Your task to perform on an android device: turn smart compose on in the gmail app Image 0: 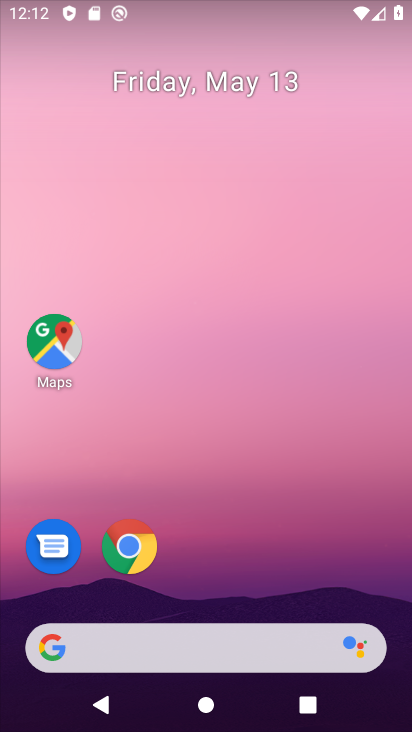
Step 0: drag from (227, 562) to (99, 143)
Your task to perform on an android device: turn smart compose on in the gmail app Image 1: 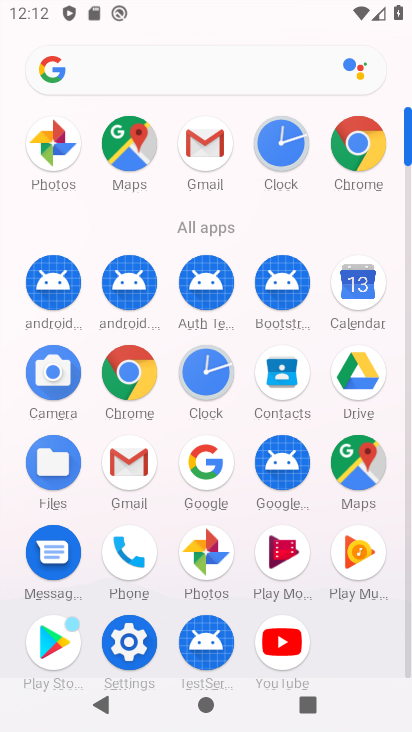
Step 1: drag from (291, 535) to (116, 194)
Your task to perform on an android device: turn smart compose on in the gmail app Image 2: 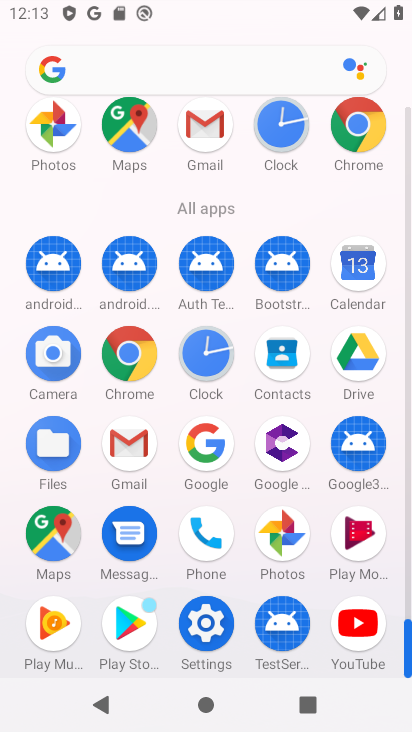
Step 2: click (135, 442)
Your task to perform on an android device: turn smart compose on in the gmail app Image 3: 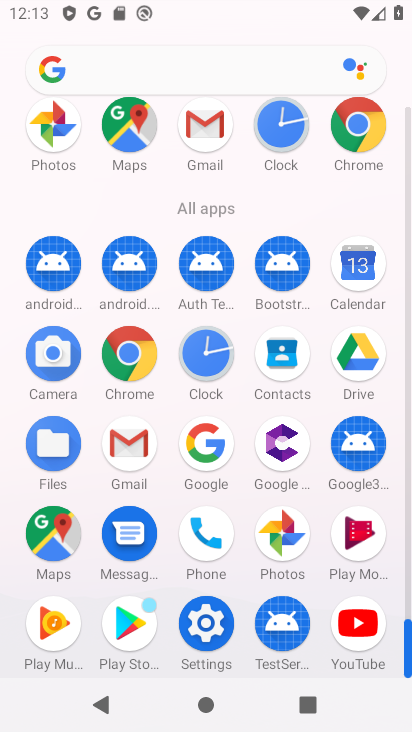
Step 3: click (128, 430)
Your task to perform on an android device: turn smart compose on in the gmail app Image 4: 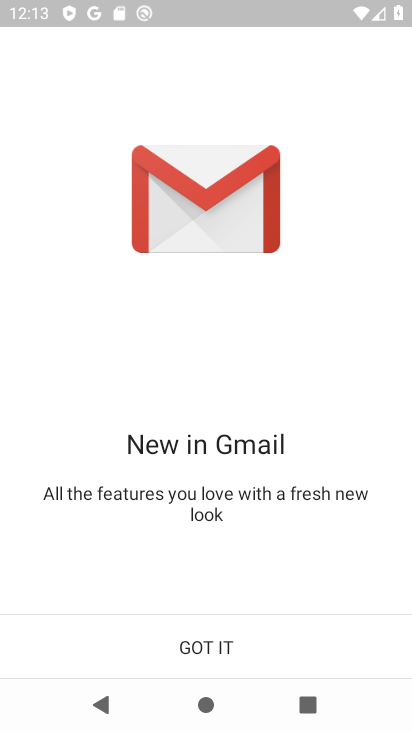
Step 4: click (214, 649)
Your task to perform on an android device: turn smart compose on in the gmail app Image 5: 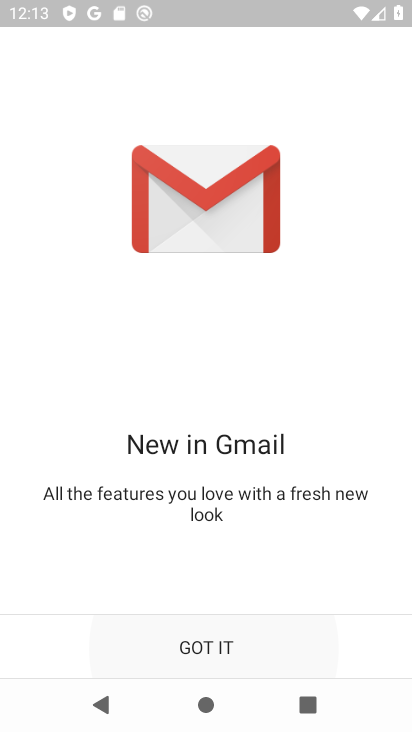
Step 5: click (217, 639)
Your task to perform on an android device: turn smart compose on in the gmail app Image 6: 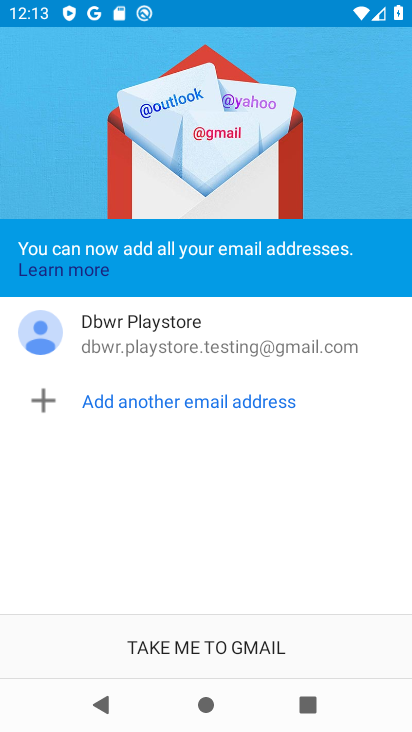
Step 6: click (201, 639)
Your task to perform on an android device: turn smart compose on in the gmail app Image 7: 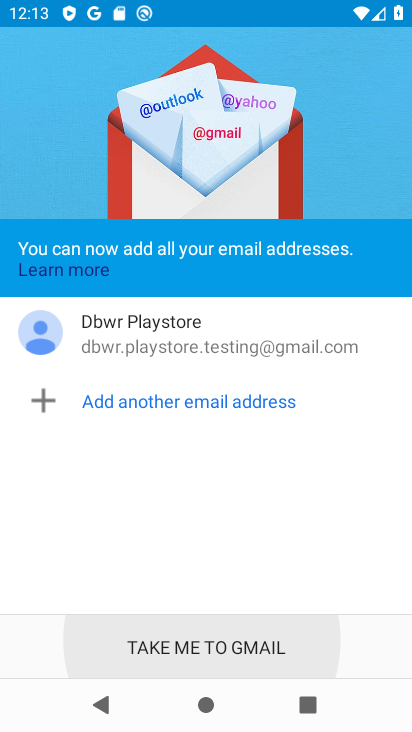
Step 7: click (201, 639)
Your task to perform on an android device: turn smart compose on in the gmail app Image 8: 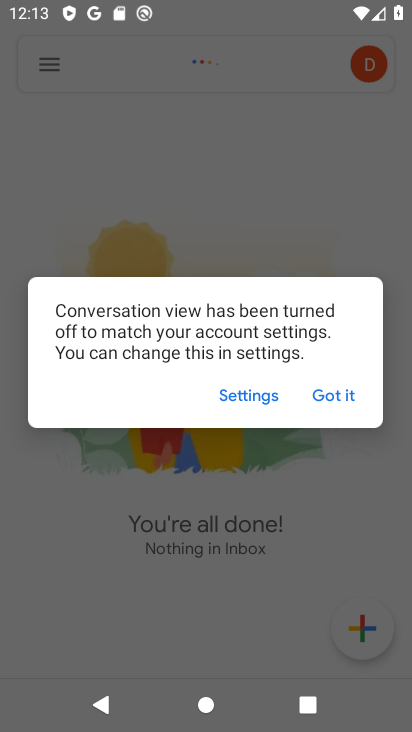
Step 8: click (341, 394)
Your task to perform on an android device: turn smart compose on in the gmail app Image 9: 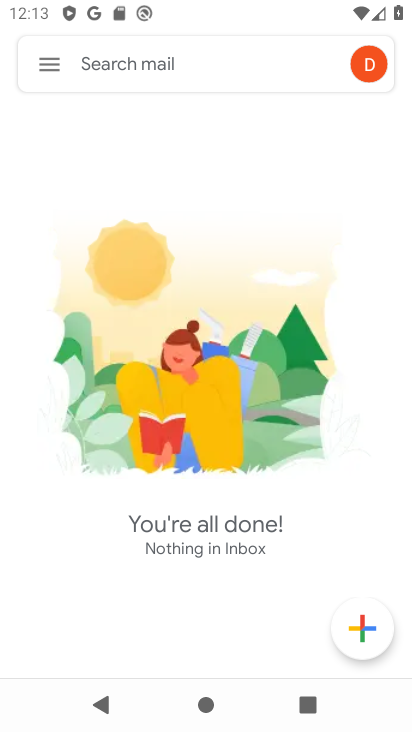
Step 9: click (38, 61)
Your task to perform on an android device: turn smart compose on in the gmail app Image 10: 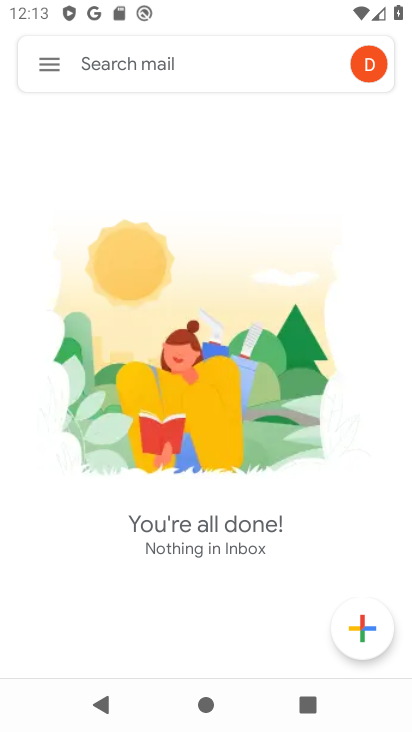
Step 10: click (47, 72)
Your task to perform on an android device: turn smart compose on in the gmail app Image 11: 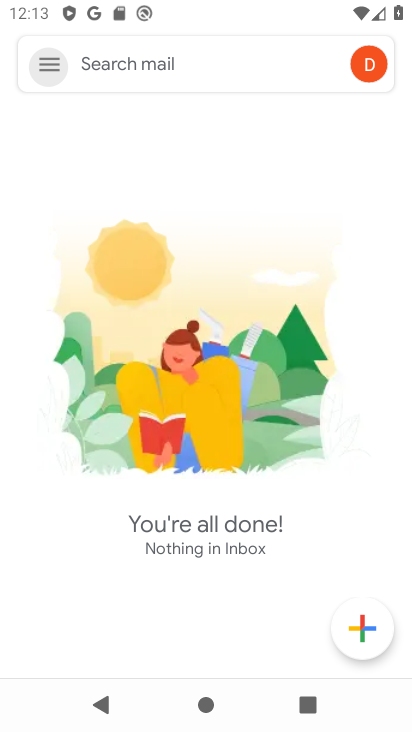
Step 11: click (49, 75)
Your task to perform on an android device: turn smart compose on in the gmail app Image 12: 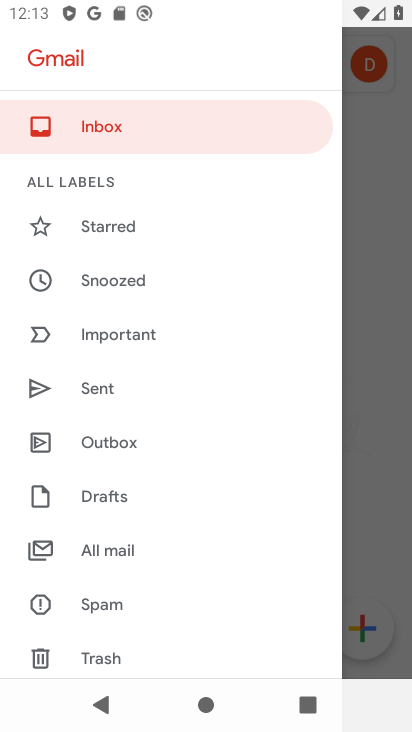
Step 12: drag from (111, 570) to (15, 59)
Your task to perform on an android device: turn smart compose on in the gmail app Image 13: 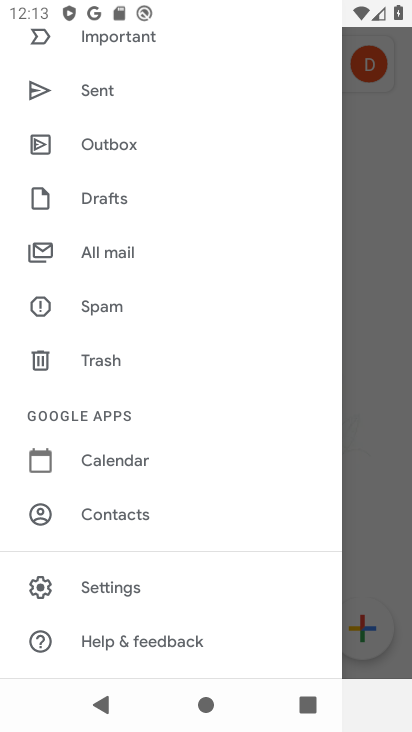
Step 13: click (112, 581)
Your task to perform on an android device: turn smart compose on in the gmail app Image 14: 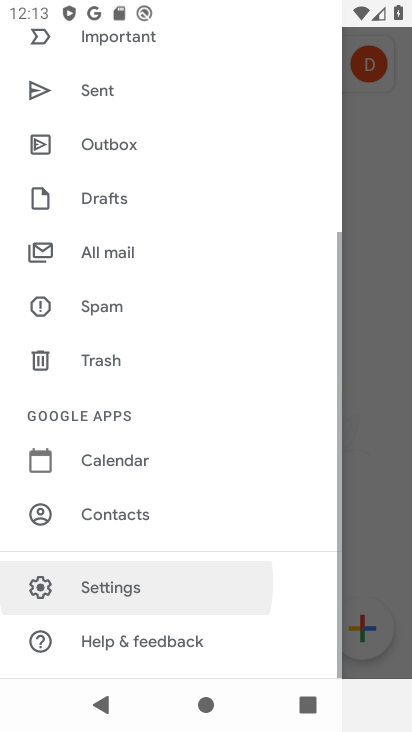
Step 14: click (110, 576)
Your task to perform on an android device: turn smart compose on in the gmail app Image 15: 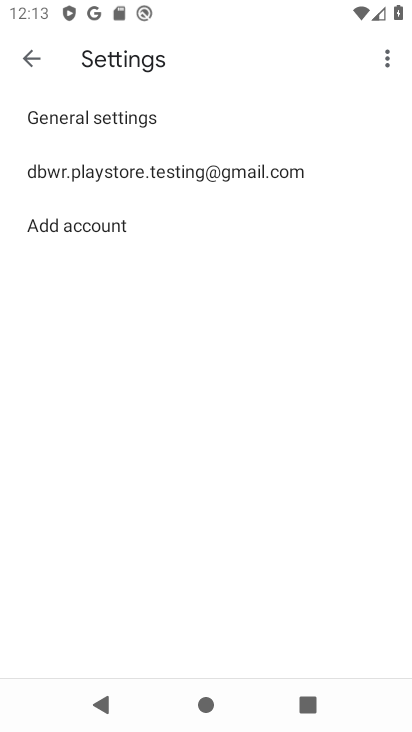
Step 15: click (115, 176)
Your task to perform on an android device: turn smart compose on in the gmail app Image 16: 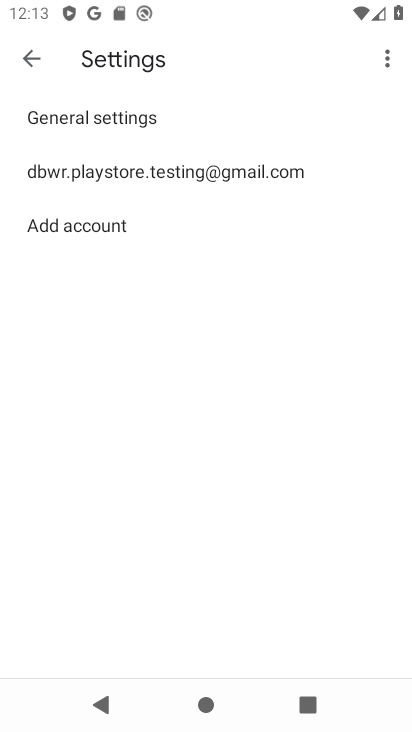
Step 16: click (114, 175)
Your task to perform on an android device: turn smart compose on in the gmail app Image 17: 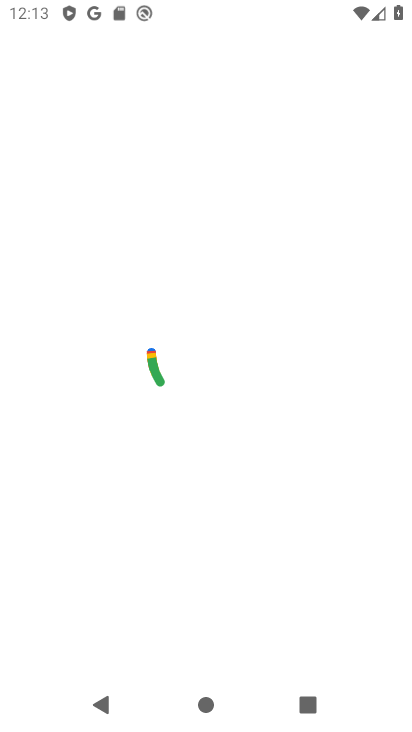
Step 17: task complete